Your task to perform on an android device: When is my next appointment? Image 0: 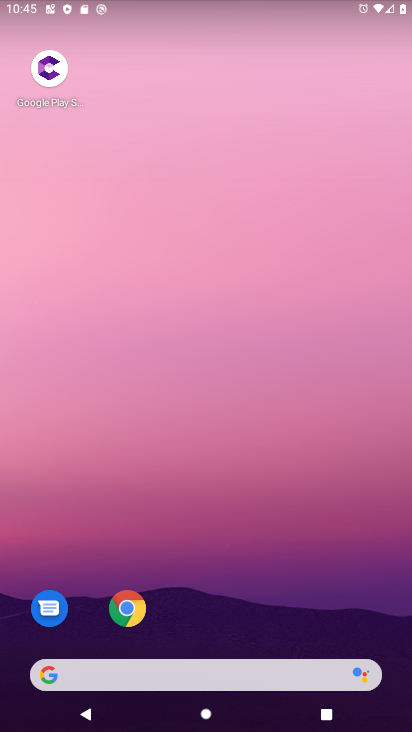
Step 0: drag from (264, 688) to (260, 25)
Your task to perform on an android device: When is my next appointment? Image 1: 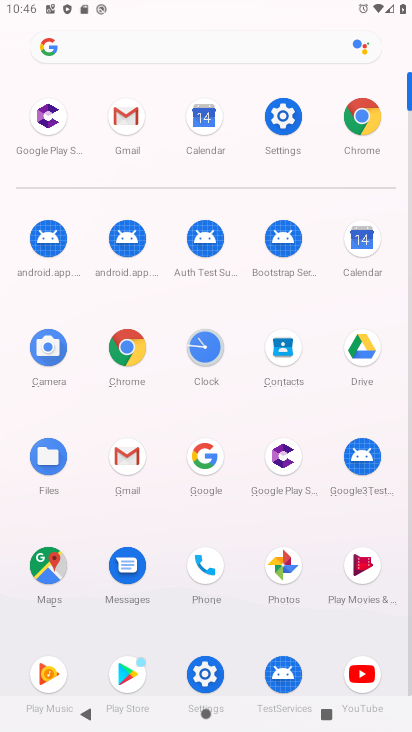
Step 1: click (364, 235)
Your task to perform on an android device: When is my next appointment? Image 2: 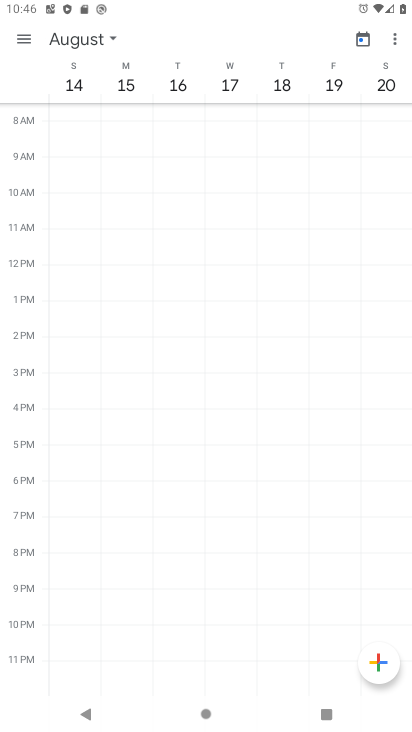
Step 2: click (115, 38)
Your task to perform on an android device: When is my next appointment? Image 3: 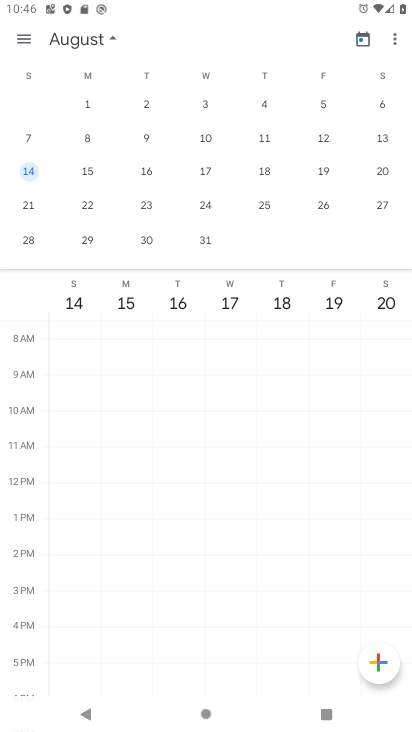
Step 3: drag from (67, 142) to (382, 152)
Your task to perform on an android device: When is my next appointment? Image 4: 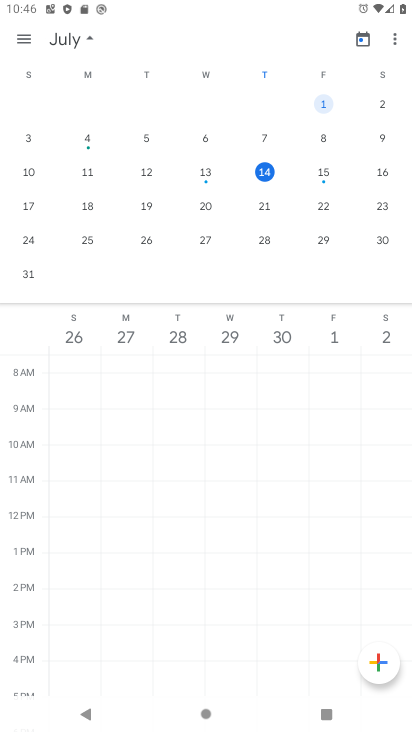
Step 4: click (325, 170)
Your task to perform on an android device: When is my next appointment? Image 5: 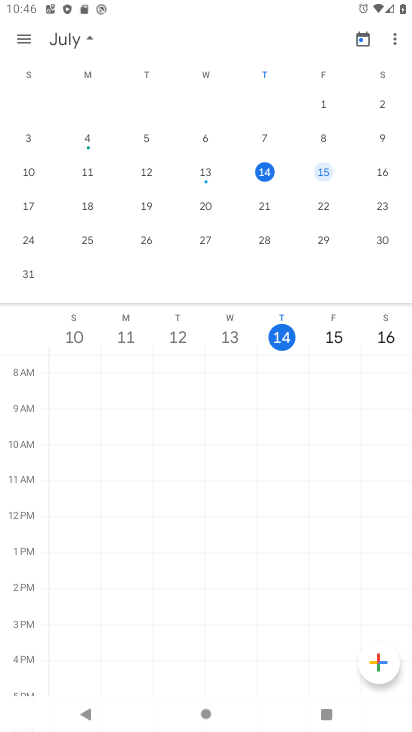
Step 5: click (331, 335)
Your task to perform on an android device: When is my next appointment? Image 6: 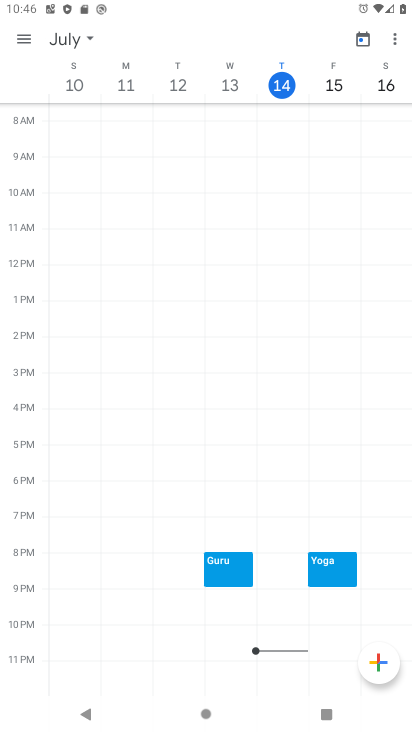
Step 6: click (331, 81)
Your task to perform on an android device: When is my next appointment? Image 7: 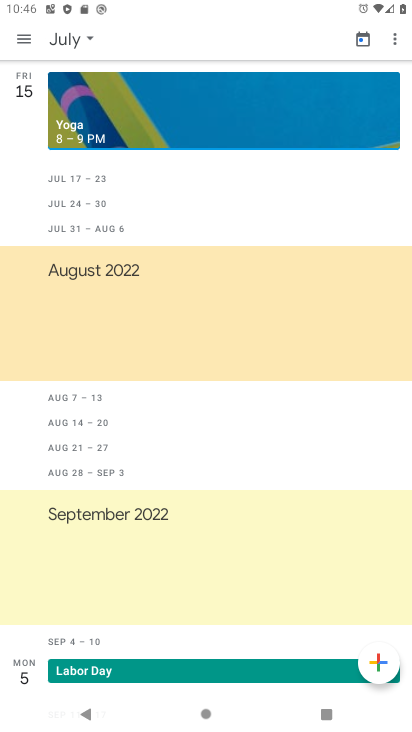
Step 7: task complete